Your task to perform on an android device: Open Youtube and go to "Your channel" Image 0: 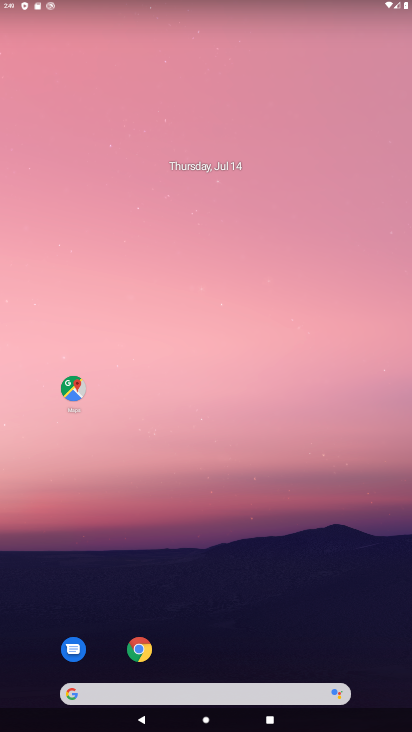
Step 0: drag from (223, 627) to (293, 45)
Your task to perform on an android device: Open Youtube and go to "Your channel" Image 1: 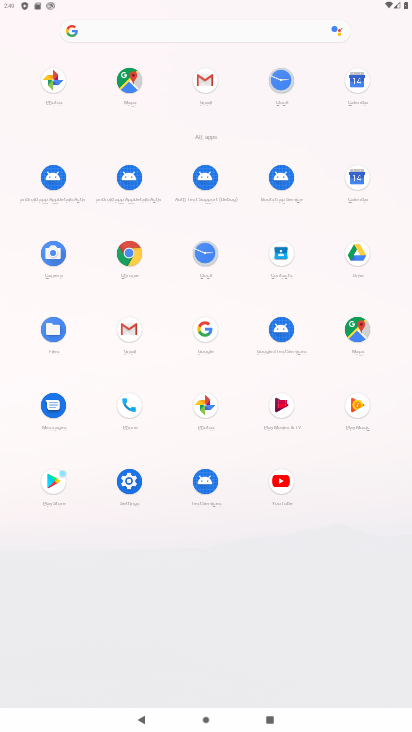
Step 1: click (281, 481)
Your task to perform on an android device: Open Youtube and go to "Your channel" Image 2: 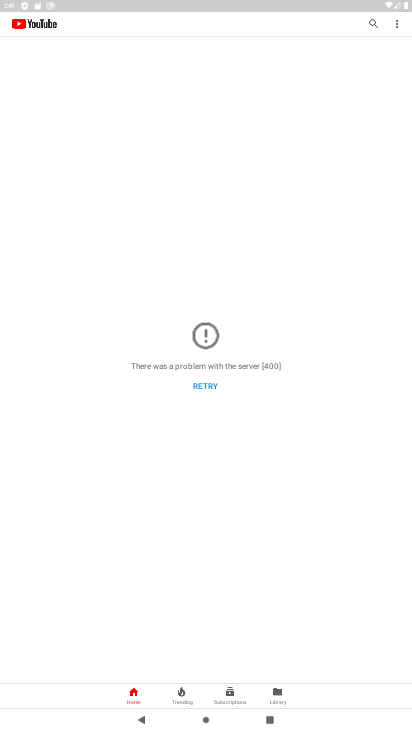
Step 2: task complete